Your task to perform on an android device: star an email in the gmail app Image 0: 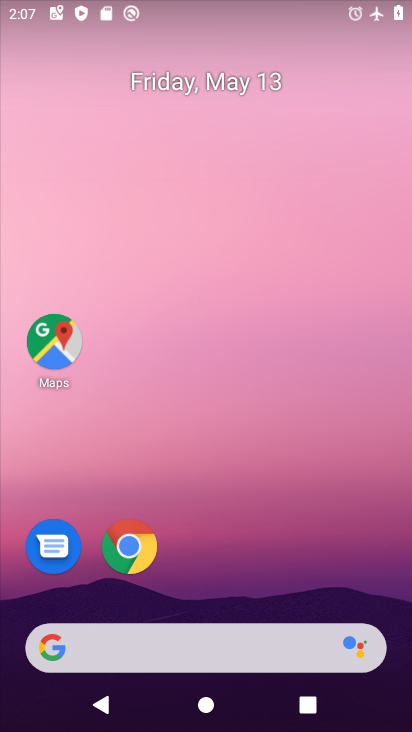
Step 0: drag from (261, 581) to (200, 178)
Your task to perform on an android device: star an email in the gmail app Image 1: 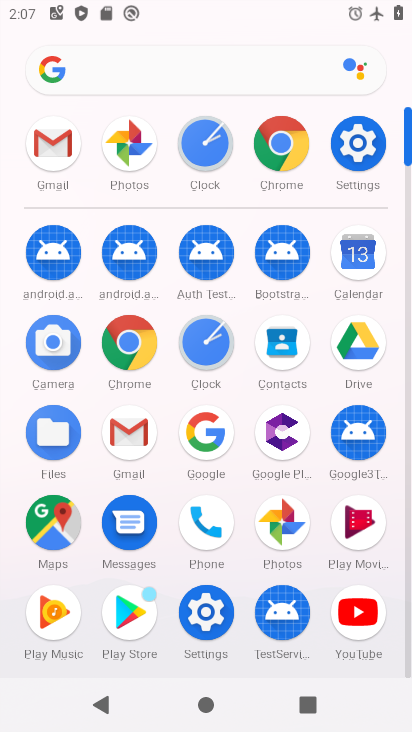
Step 1: click (123, 439)
Your task to perform on an android device: star an email in the gmail app Image 2: 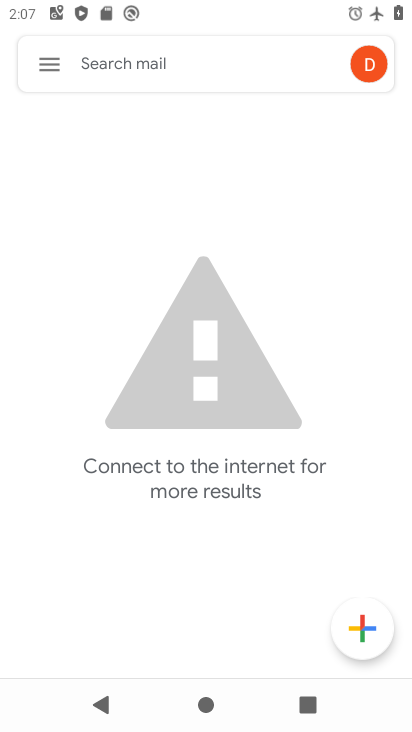
Step 2: task complete